Your task to perform on an android device: Open internet settings Image 0: 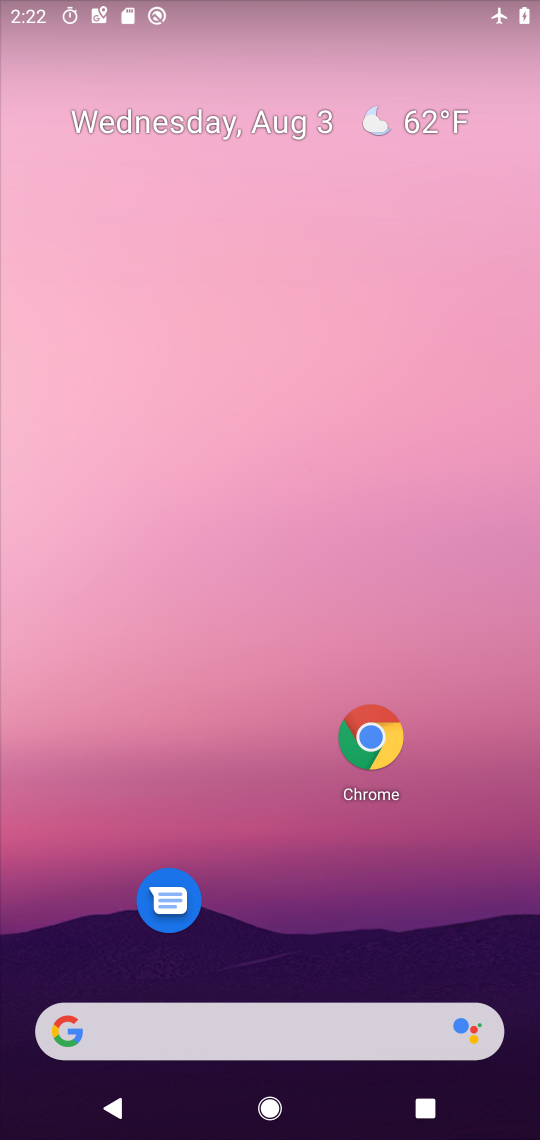
Step 0: drag from (251, 797) to (323, 32)
Your task to perform on an android device: Open internet settings Image 1: 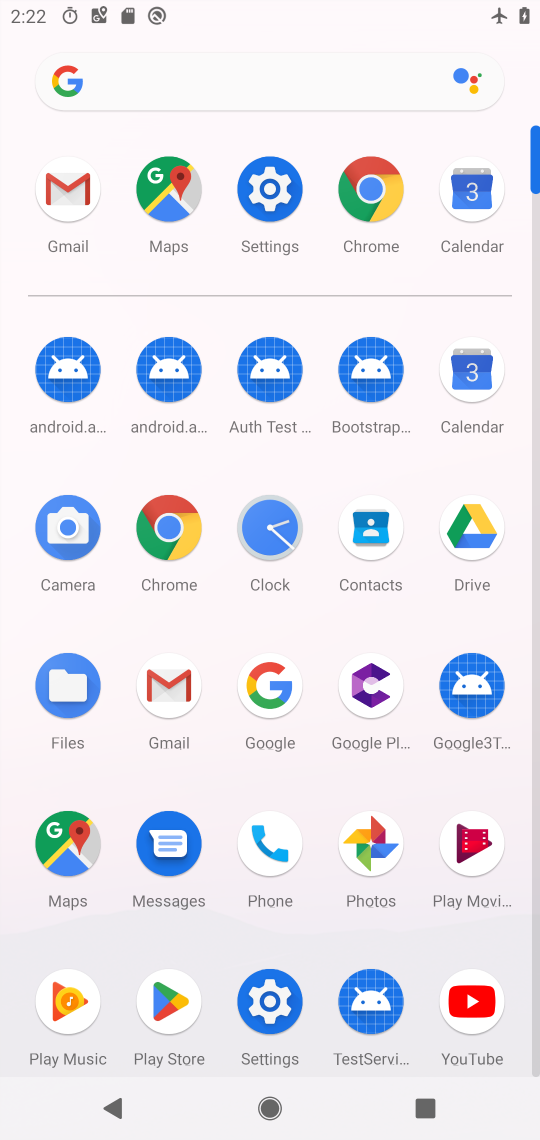
Step 1: click (263, 188)
Your task to perform on an android device: Open internet settings Image 2: 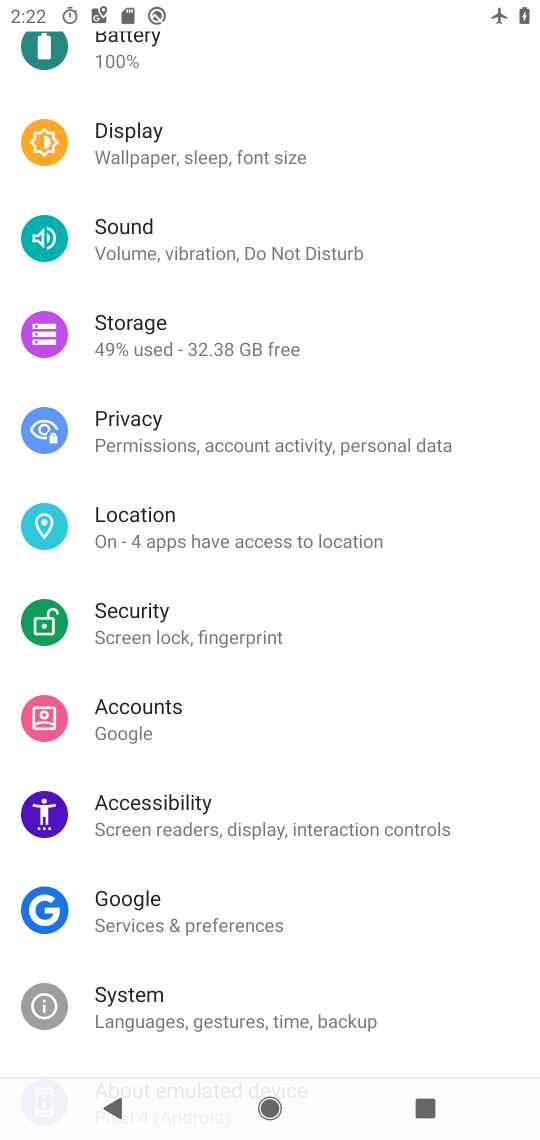
Step 2: drag from (269, 101) to (168, 756)
Your task to perform on an android device: Open internet settings Image 3: 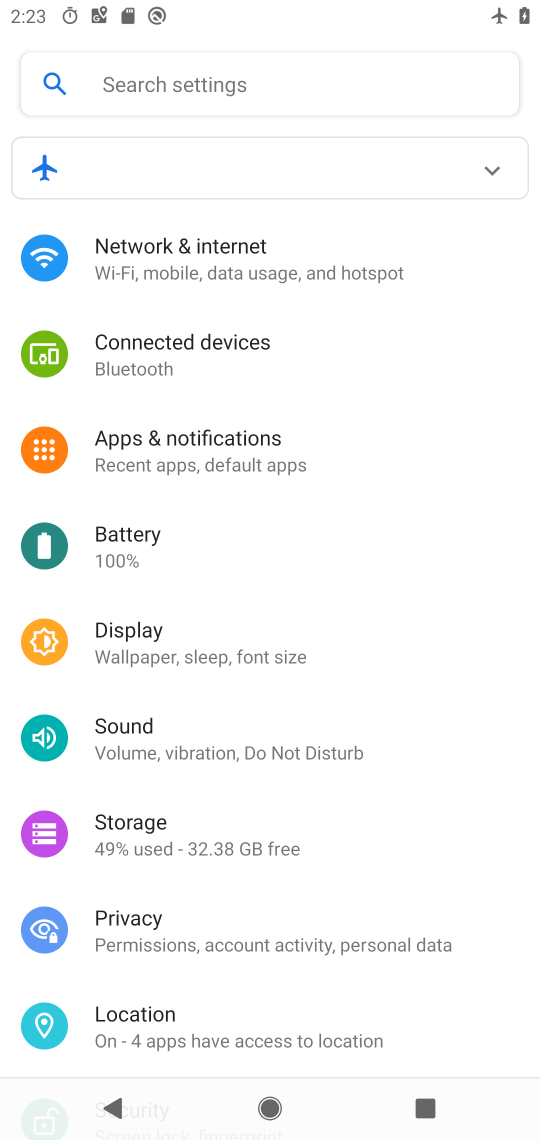
Step 3: click (234, 275)
Your task to perform on an android device: Open internet settings Image 4: 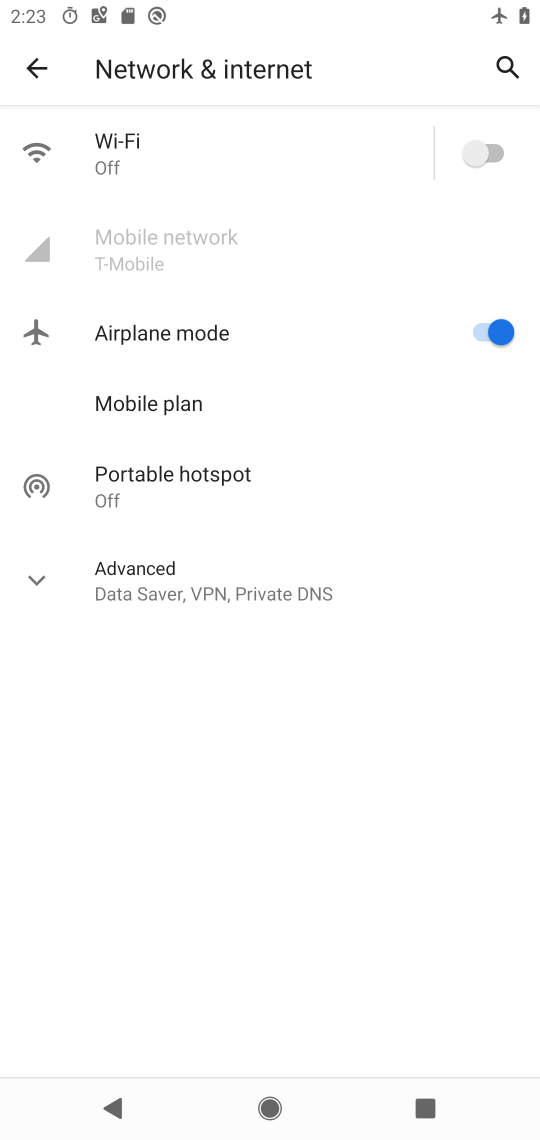
Step 4: click (150, 565)
Your task to perform on an android device: Open internet settings Image 5: 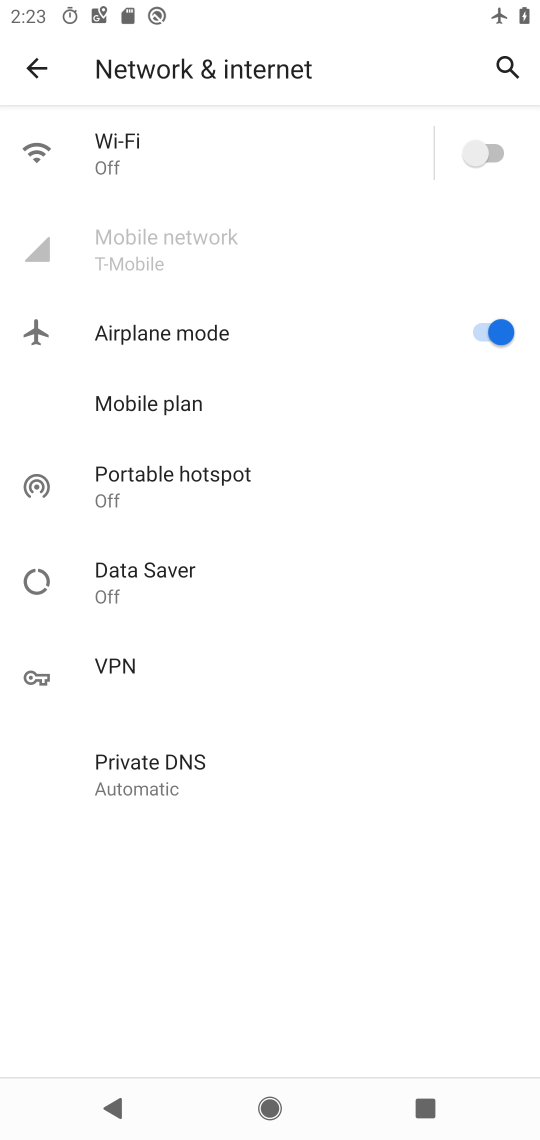
Step 5: task complete